Your task to perform on an android device: Toggle the flashlight Image 0: 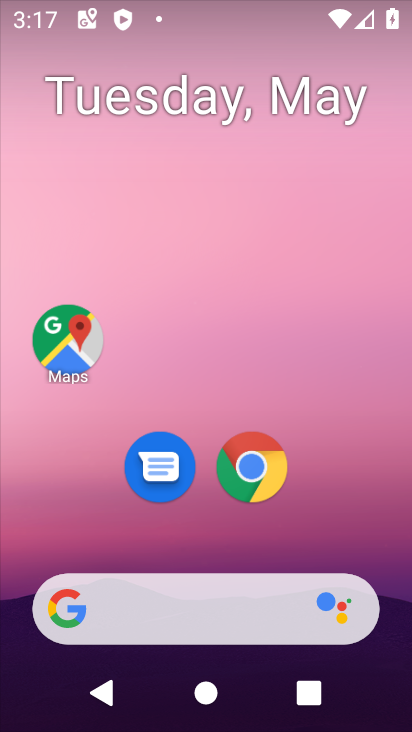
Step 0: press home button
Your task to perform on an android device: Toggle the flashlight Image 1: 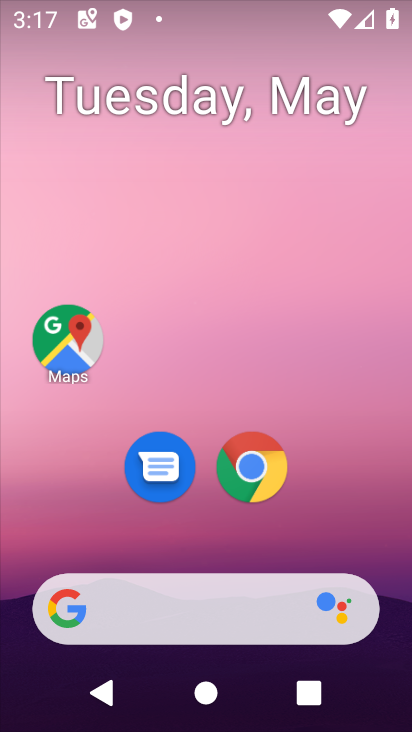
Step 1: task complete